Your task to perform on an android device: turn off javascript in the chrome app Image 0: 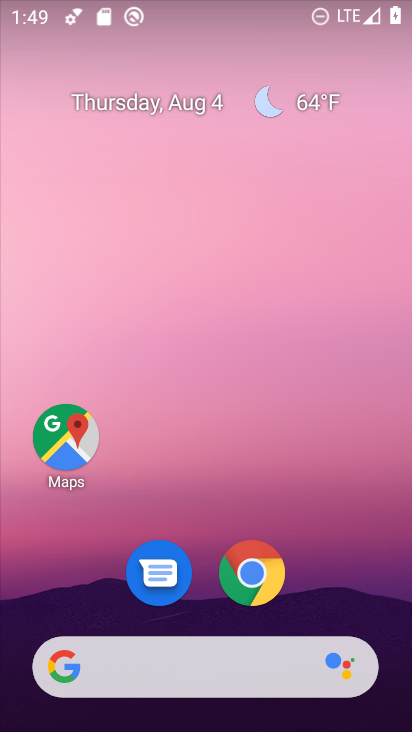
Step 0: drag from (314, 526) to (300, 88)
Your task to perform on an android device: turn off javascript in the chrome app Image 1: 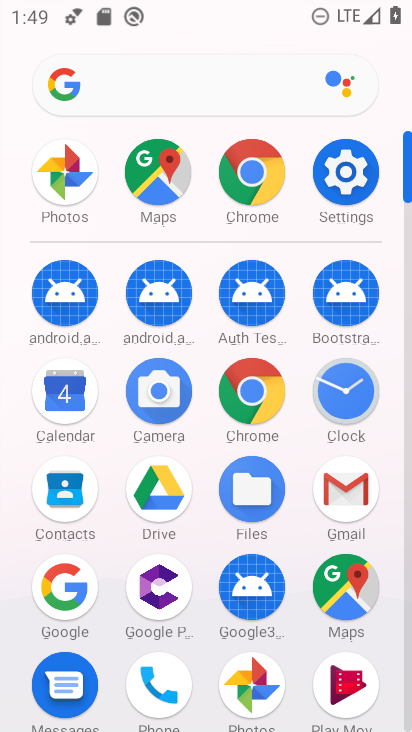
Step 1: click (250, 389)
Your task to perform on an android device: turn off javascript in the chrome app Image 2: 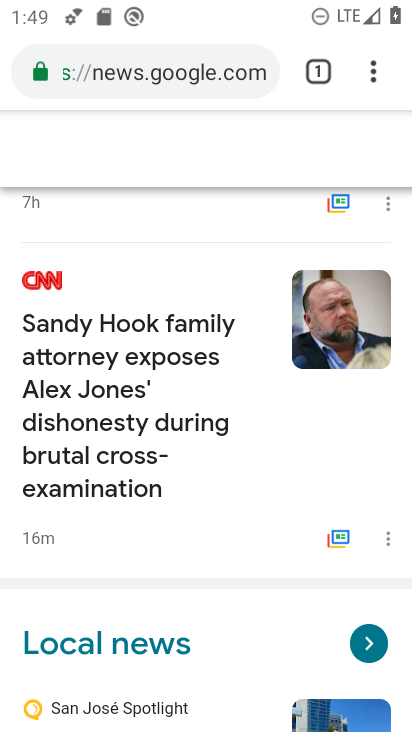
Step 2: drag from (371, 60) to (191, 566)
Your task to perform on an android device: turn off javascript in the chrome app Image 3: 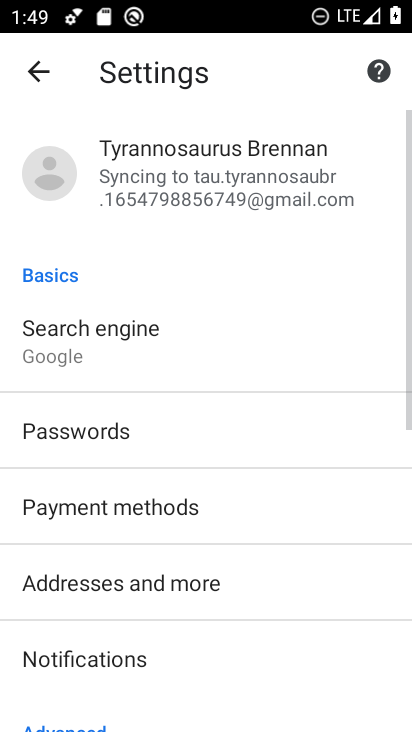
Step 3: drag from (232, 618) to (221, 254)
Your task to perform on an android device: turn off javascript in the chrome app Image 4: 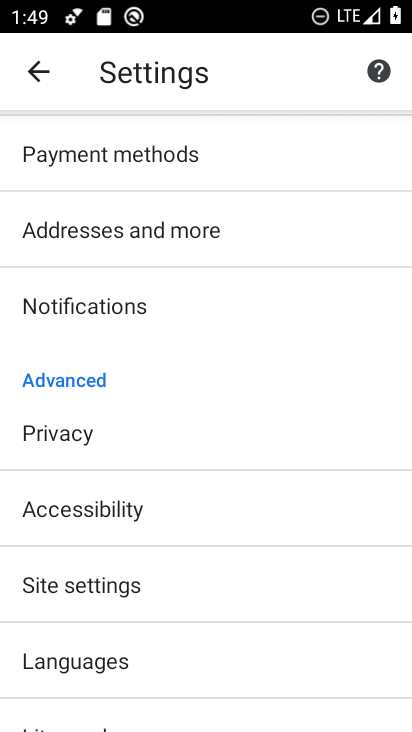
Step 4: click (109, 584)
Your task to perform on an android device: turn off javascript in the chrome app Image 5: 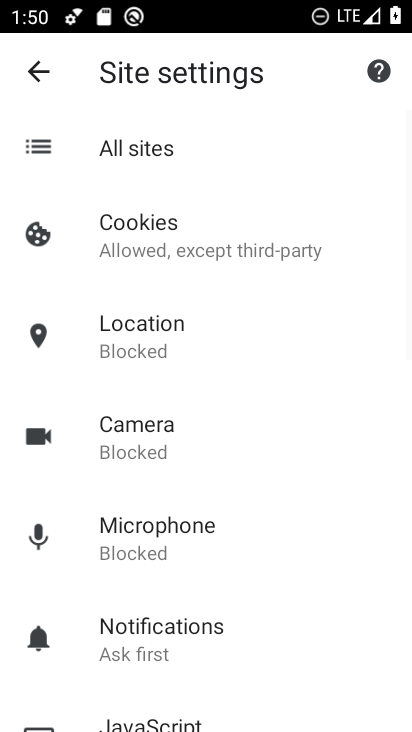
Step 5: drag from (285, 606) to (280, 179)
Your task to perform on an android device: turn off javascript in the chrome app Image 6: 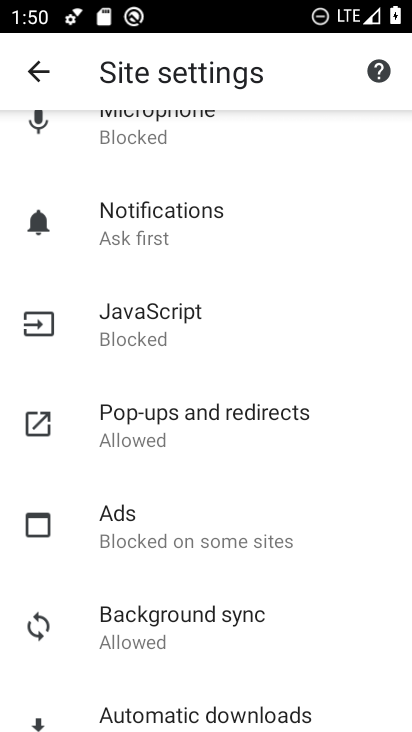
Step 6: click (124, 333)
Your task to perform on an android device: turn off javascript in the chrome app Image 7: 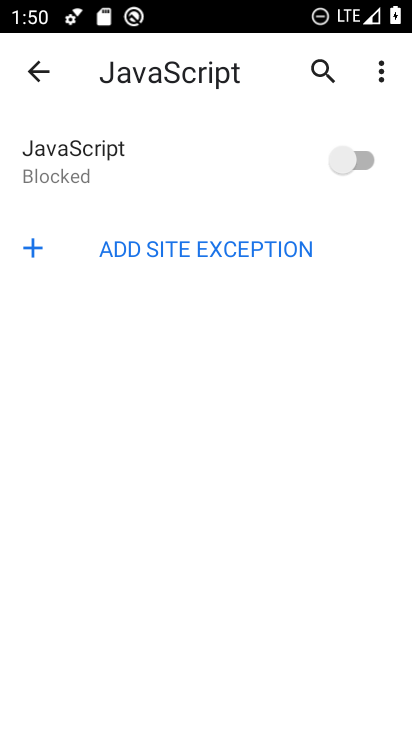
Step 7: task complete